Your task to perform on an android device: Open display settings Image 0: 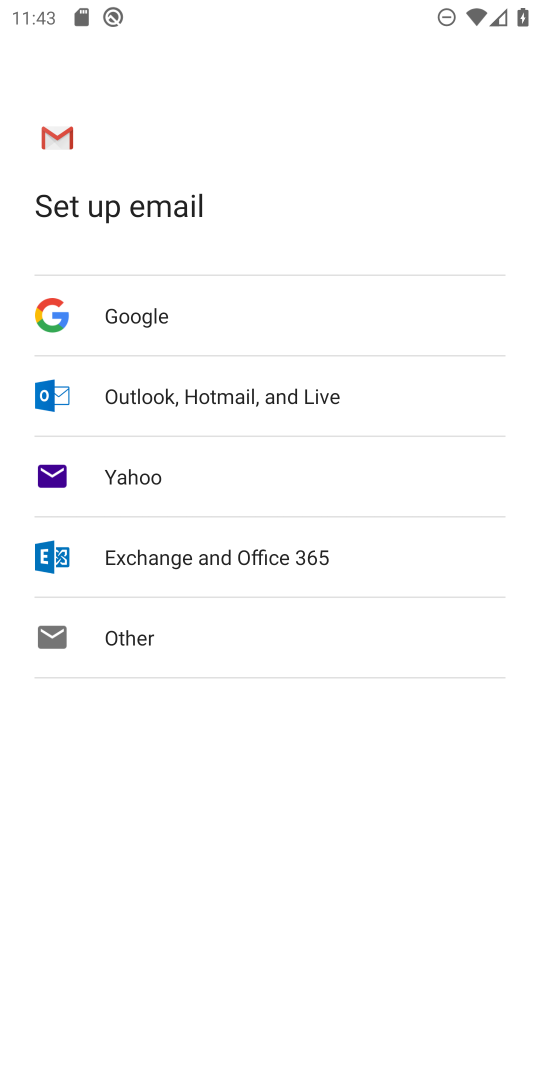
Step 0: press home button
Your task to perform on an android device: Open display settings Image 1: 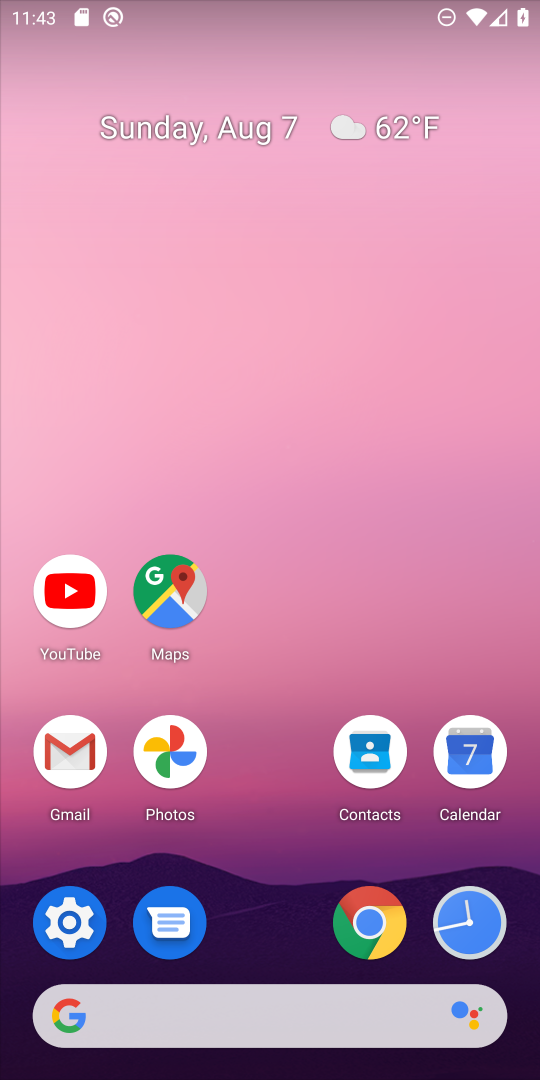
Step 1: click (62, 920)
Your task to perform on an android device: Open display settings Image 2: 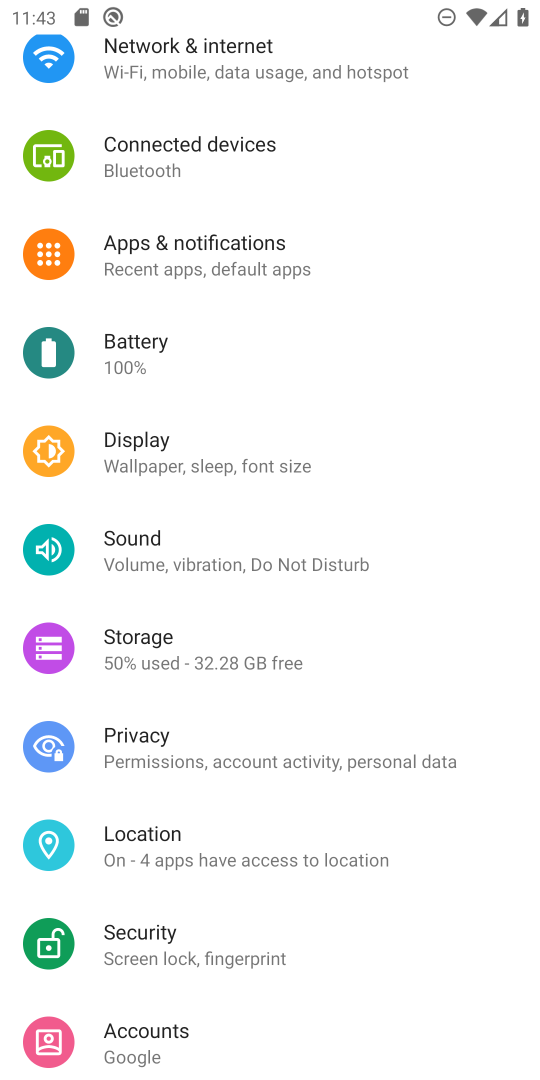
Step 2: click (138, 441)
Your task to perform on an android device: Open display settings Image 3: 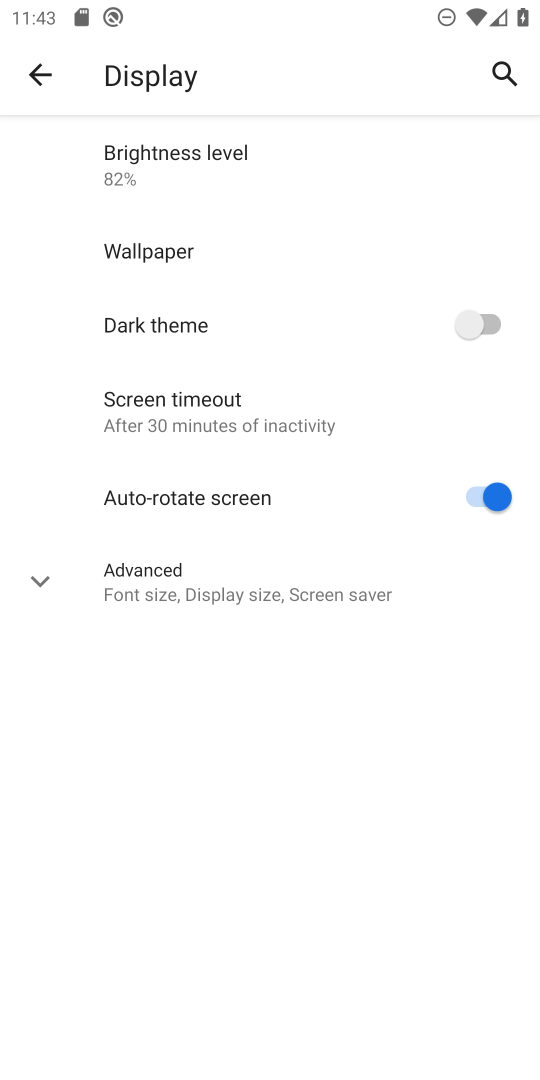
Step 3: task complete